Your task to perform on an android device: turn on wifi Image 0: 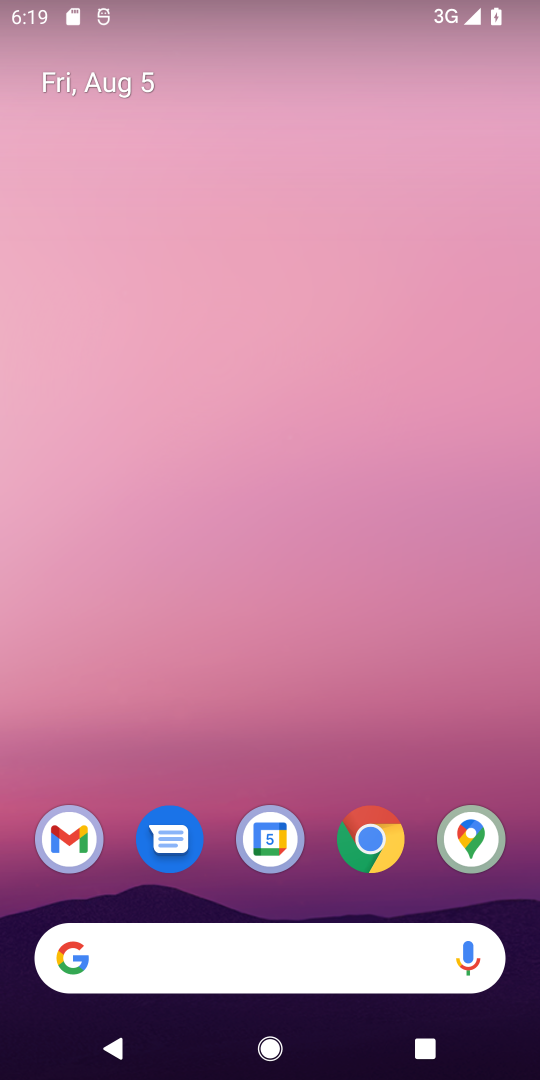
Step 0: drag from (272, 749) to (272, 231)
Your task to perform on an android device: turn on wifi Image 1: 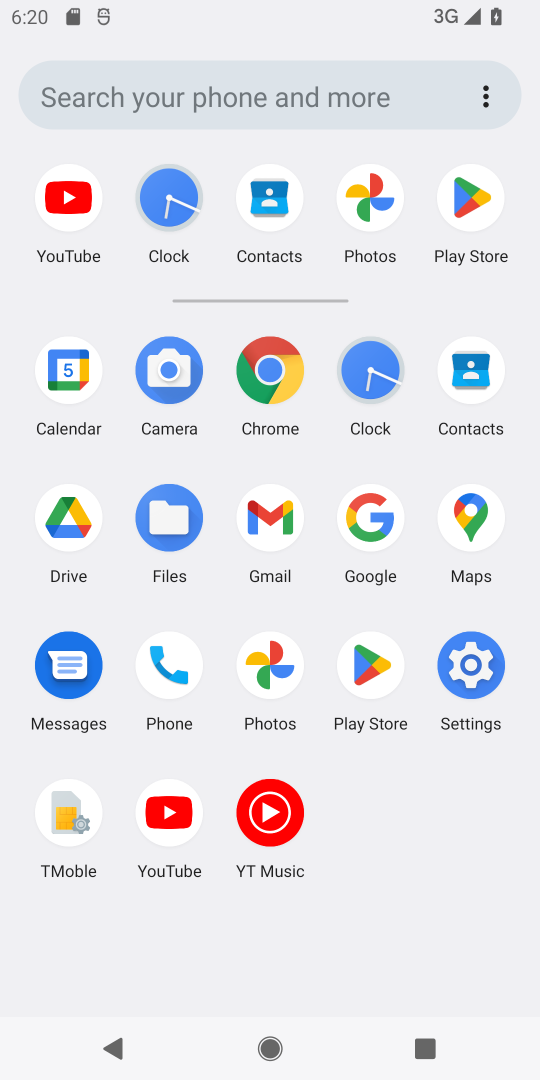
Step 1: click (478, 675)
Your task to perform on an android device: turn on wifi Image 2: 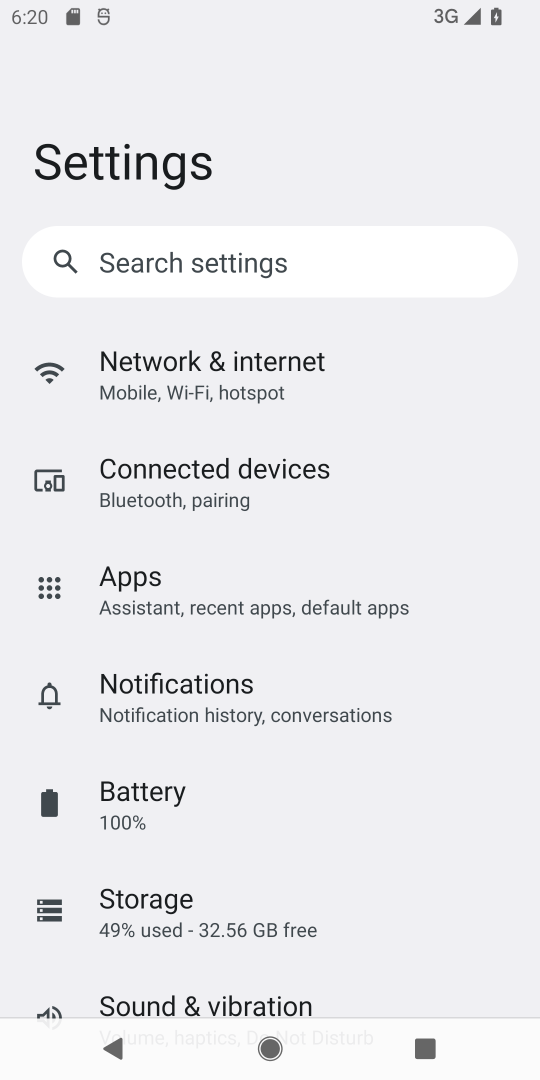
Step 2: click (204, 351)
Your task to perform on an android device: turn on wifi Image 3: 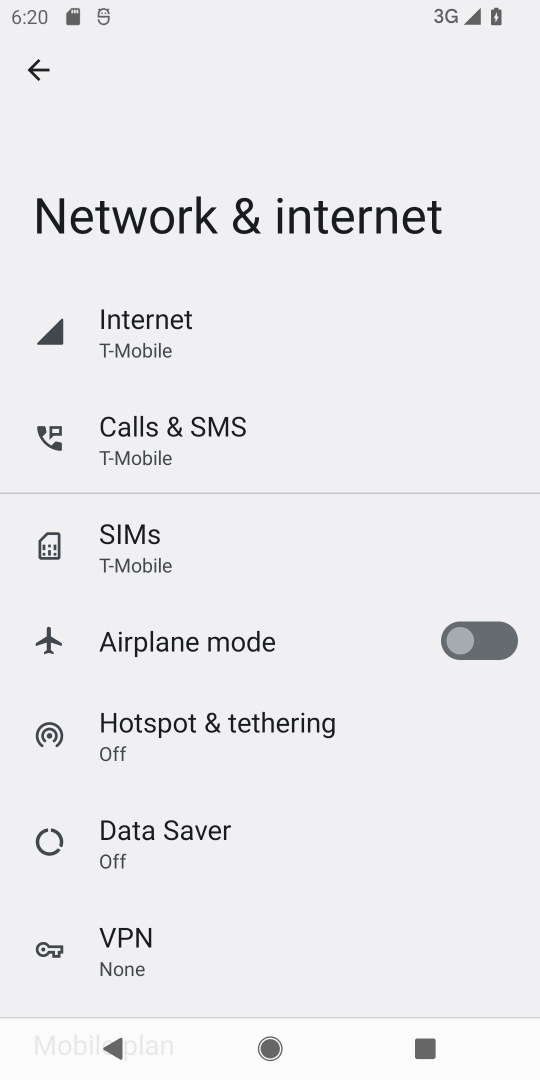
Step 3: click (174, 338)
Your task to perform on an android device: turn on wifi Image 4: 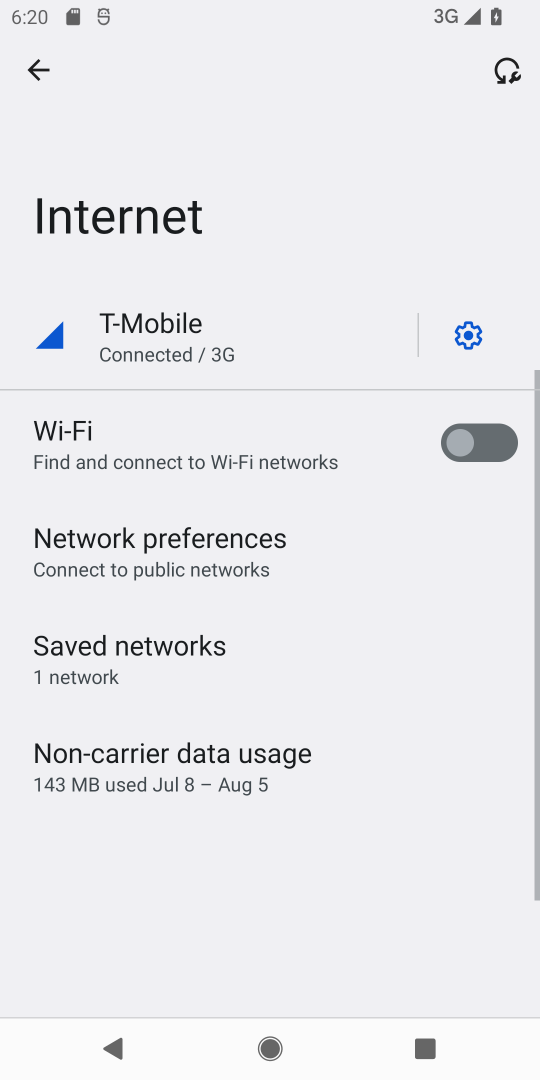
Step 4: click (494, 444)
Your task to perform on an android device: turn on wifi Image 5: 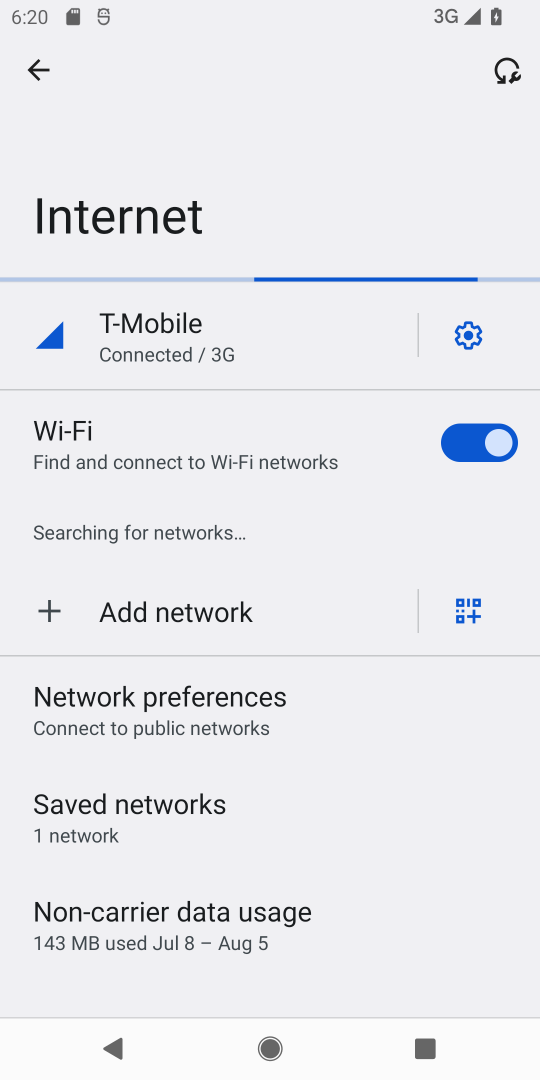
Step 5: task complete